Your task to perform on an android device: Open calendar and show me the fourth week of next month Image 0: 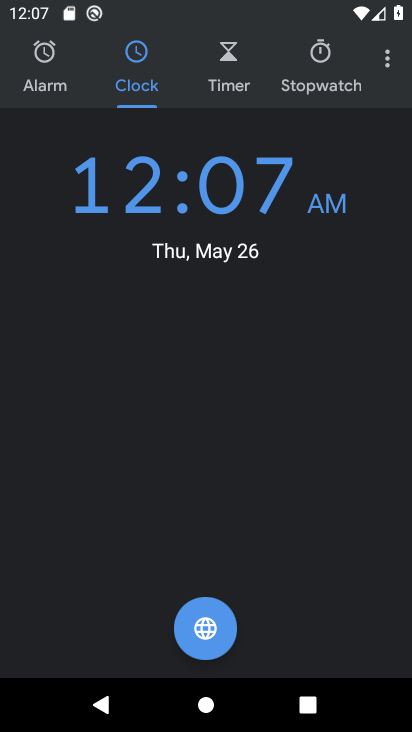
Step 0: press home button
Your task to perform on an android device: Open calendar and show me the fourth week of next month Image 1: 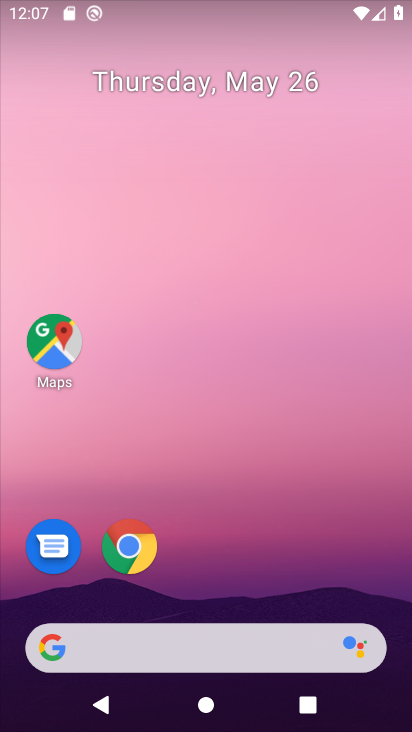
Step 1: drag from (187, 584) to (258, 174)
Your task to perform on an android device: Open calendar and show me the fourth week of next month Image 2: 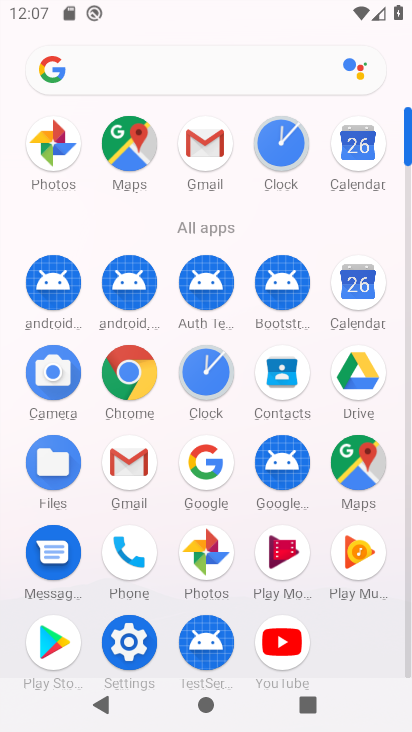
Step 2: click (356, 285)
Your task to perform on an android device: Open calendar and show me the fourth week of next month Image 3: 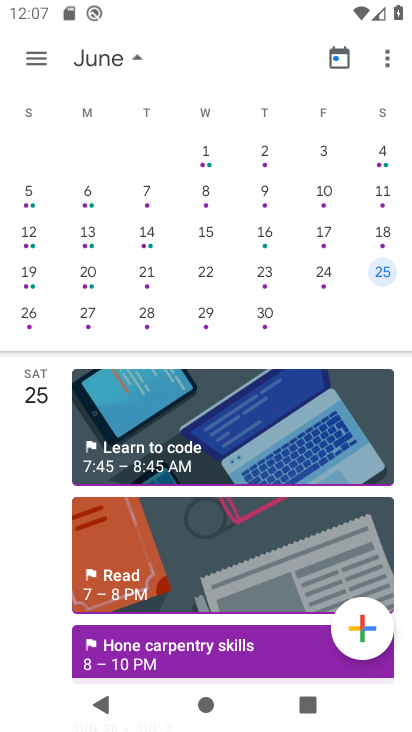
Step 3: click (322, 270)
Your task to perform on an android device: Open calendar and show me the fourth week of next month Image 4: 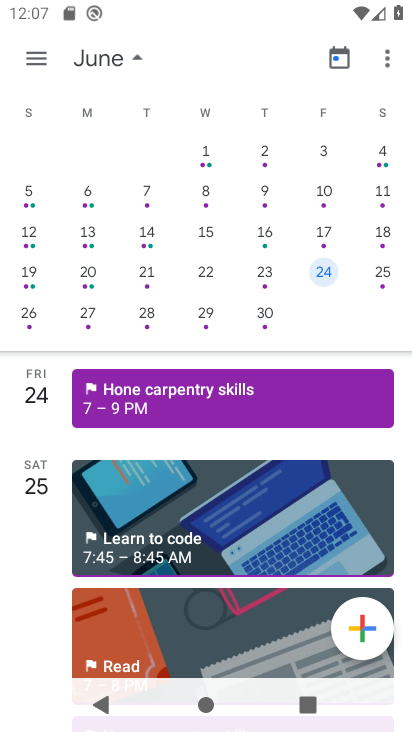
Step 4: click (256, 276)
Your task to perform on an android device: Open calendar and show me the fourth week of next month Image 5: 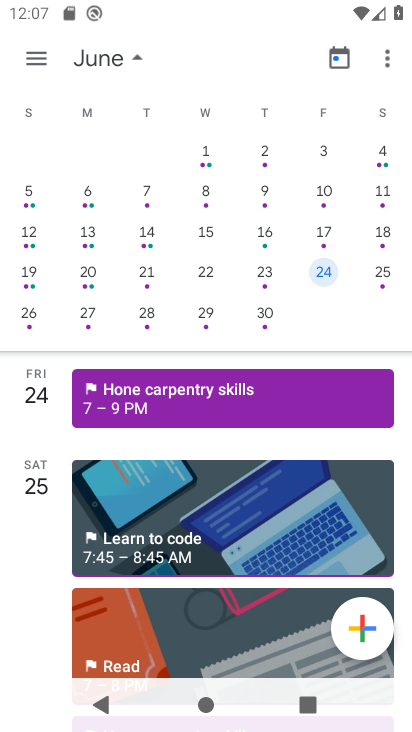
Step 5: click (187, 276)
Your task to perform on an android device: Open calendar and show me the fourth week of next month Image 6: 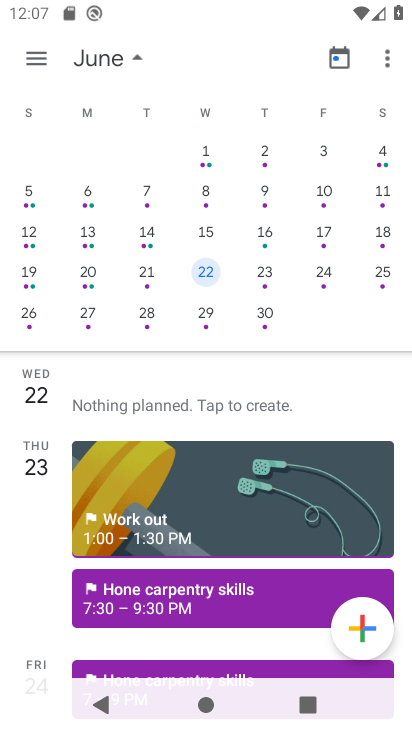
Step 6: click (130, 276)
Your task to perform on an android device: Open calendar and show me the fourth week of next month Image 7: 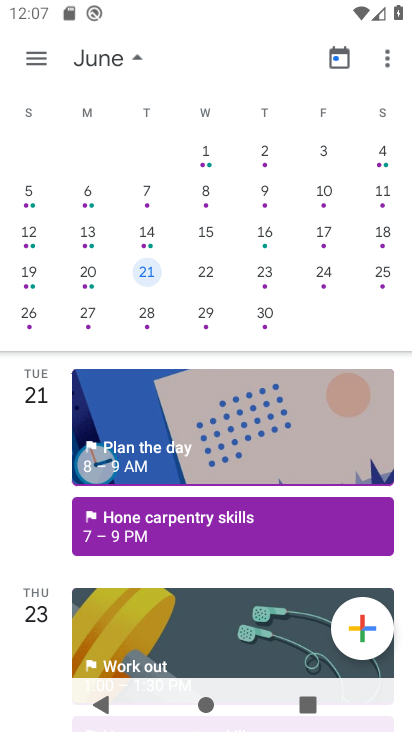
Step 7: click (98, 276)
Your task to perform on an android device: Open calendar and show me the fourth week of next month Image 8: 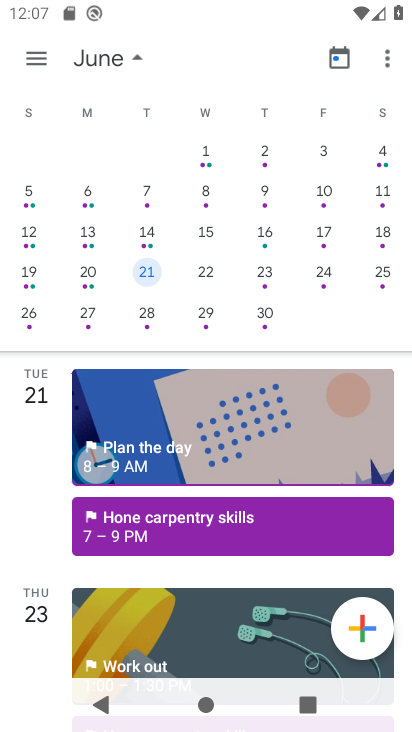
Step 8: click (42, 278)
Your task to perform on an android device: Open calendar and show me the fourth week of next month Image 9: 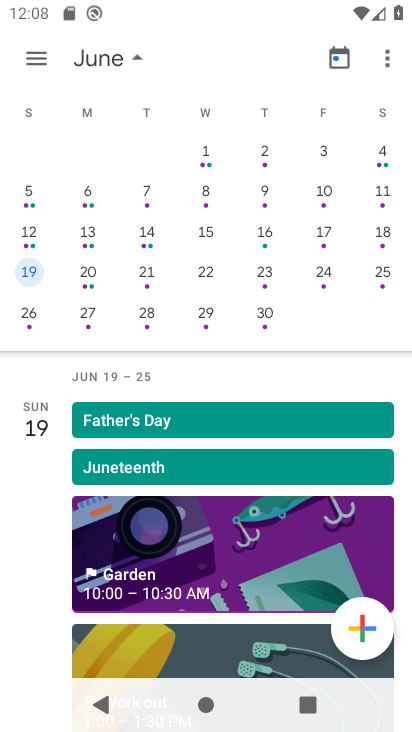
Step 9: task complete